Your task to perform on an android device: Show me productivity apps on the Play Store Image 0: 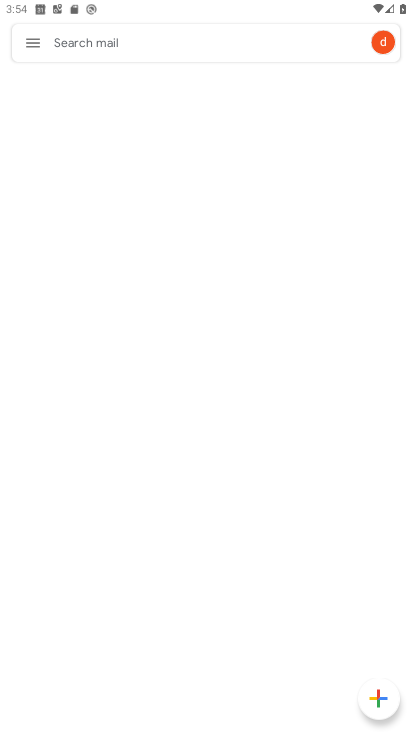
Step 0: press home button
Your task to perform on an android device: Show me productivity apps on the Play Store Image 1: 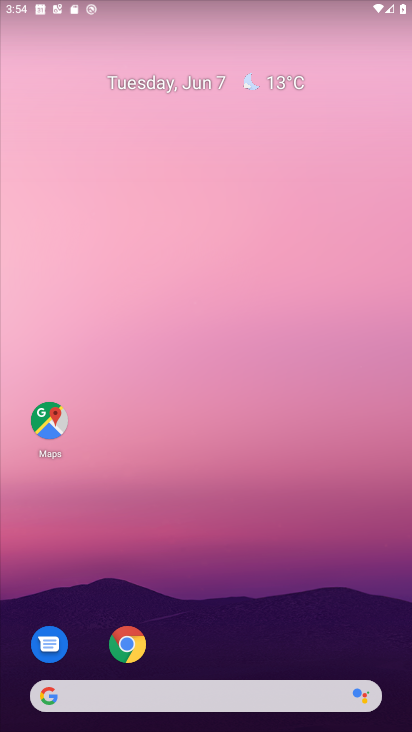
Step 1: drag from (360, 624) to (364, 175)
Your task to perform on an android device: Show me productivity apps on the Play Store Image 2: 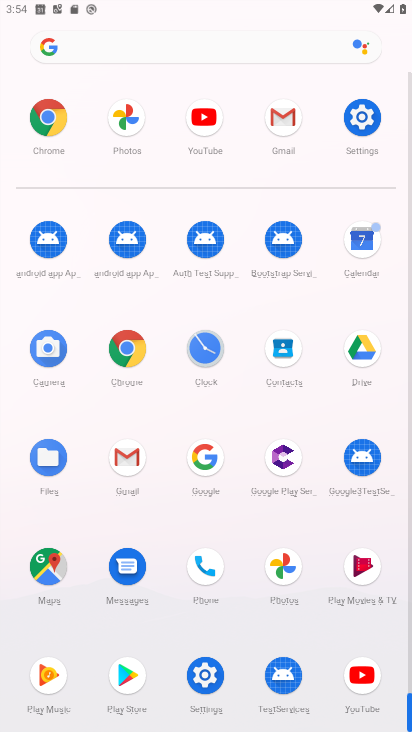
Step 2: click (131, 678)
Your task to perform on an android device: Show me productivity apps on the Play Store Image 3: 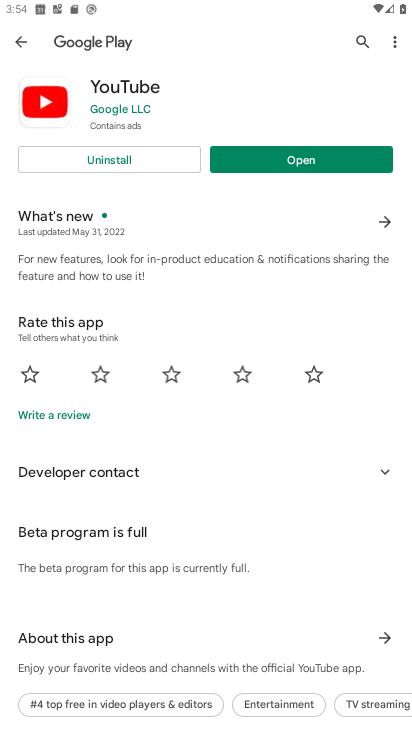
Step 3: press back button
Your task to perform on an android device: Show me productivity apps on the Play Store Image 4: 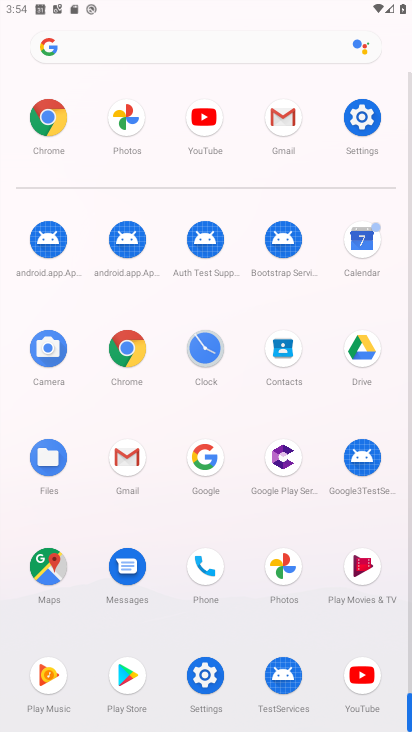
Step 4: click (128, 687)
Your task to perform on an android device: Show me productivity apps on the Play Store Image 5: 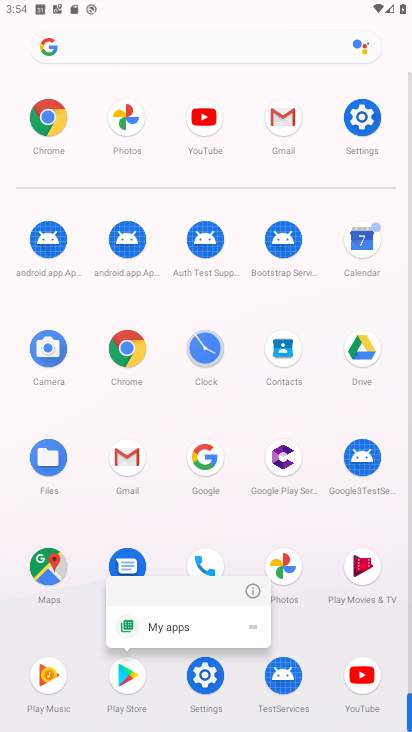
Step 5: click (128, 687)
Your task to perform on an android device: Show me productivity apps on the Play Store Image 6: 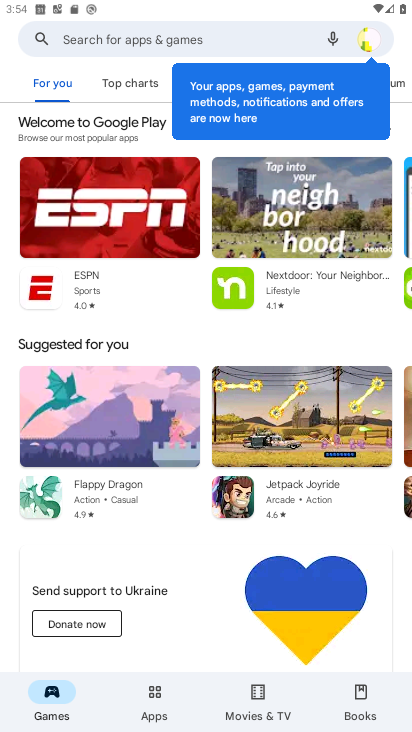
Step 6: click (154, 709)
Your task to perform on an android device: Show me productivity apps on the Play Store Image 7: 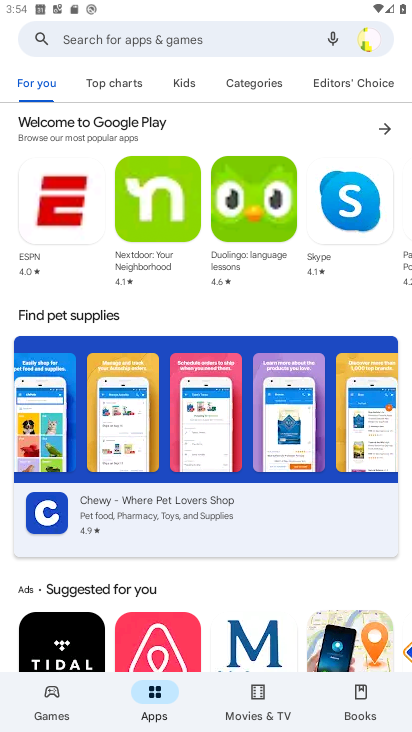
Step 7: task complete